Your task to perform on an android device: delete the emails in spam in the gmail app Image 0: 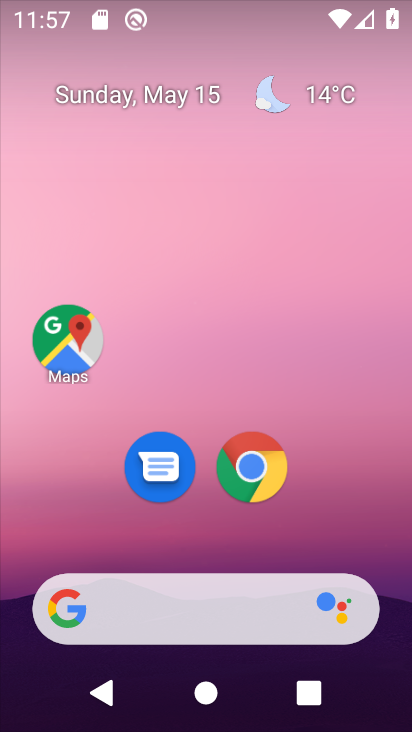
Step 0: drag from (353, 540) to (329, 113)
Your task to perform on an android device: delete the emails in spam in the gmail app Image 1: 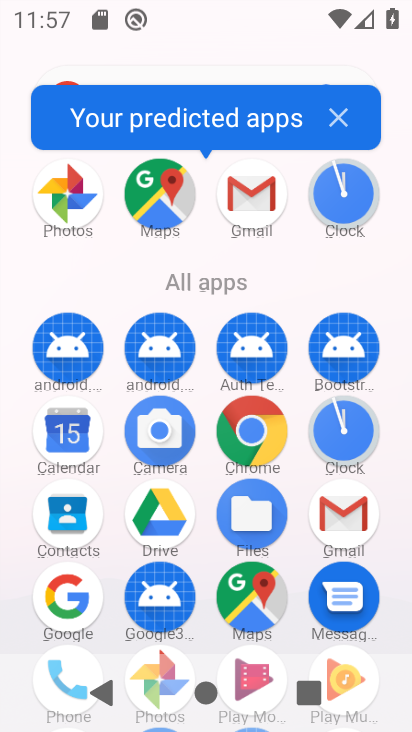
Step 1: click (338, 502)
Your task to perform on an android device: delete the emails in spam in the gmail app Image 2: 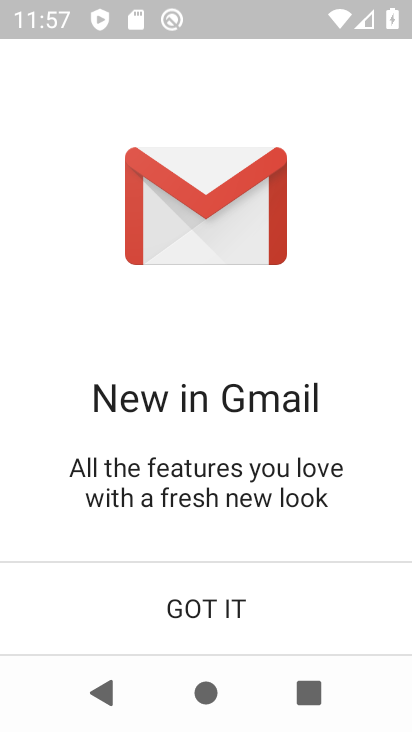
Step 2: click (209, 605)
Your task to perform on an android device: delete the emails in spam in the gmail app Image 3: 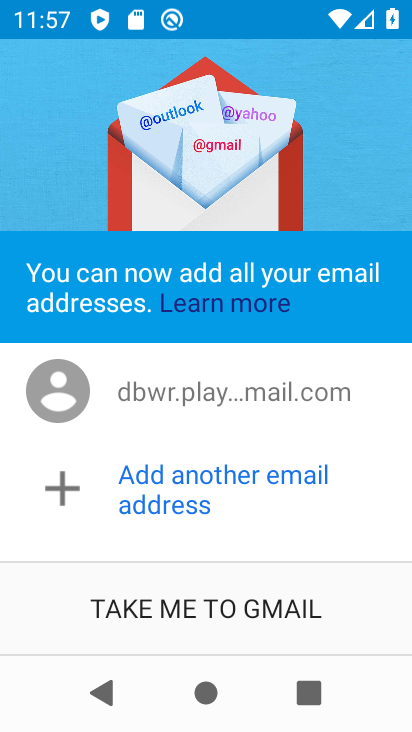
Step 3: click (212, 604)
Your task to perform on an android device: delete the emails in spam in the gmail app Image 4: 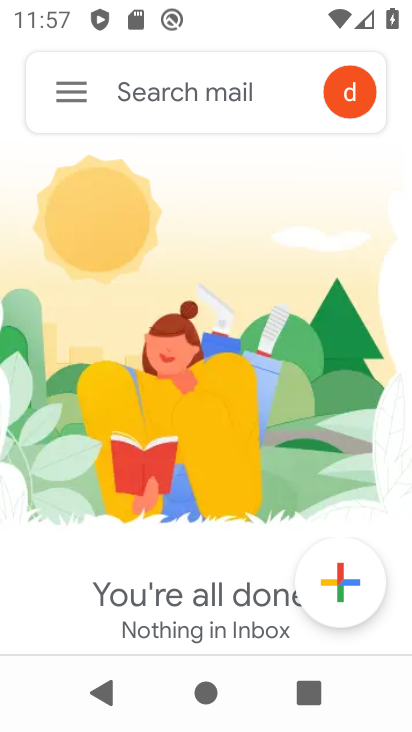
Step 4: click (66, 102)
Your task to perform on an android device: delete the emails in spam in the gmail app Image 5: 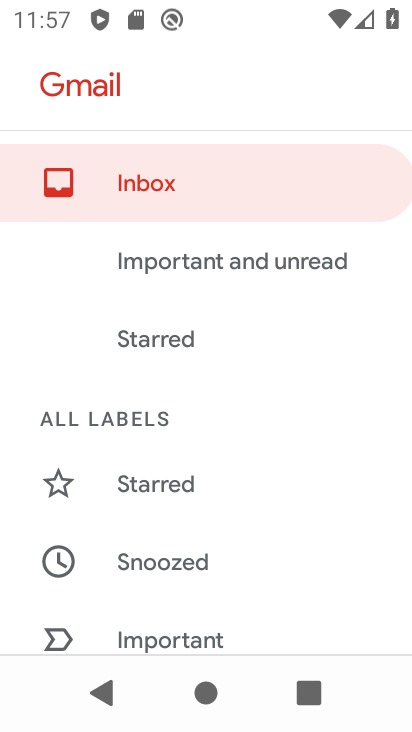
Step 5: drag from (146, 567) to (282, 149)
Your task to perform on an android device: delete the emails in spam in the gmail app Image 6: 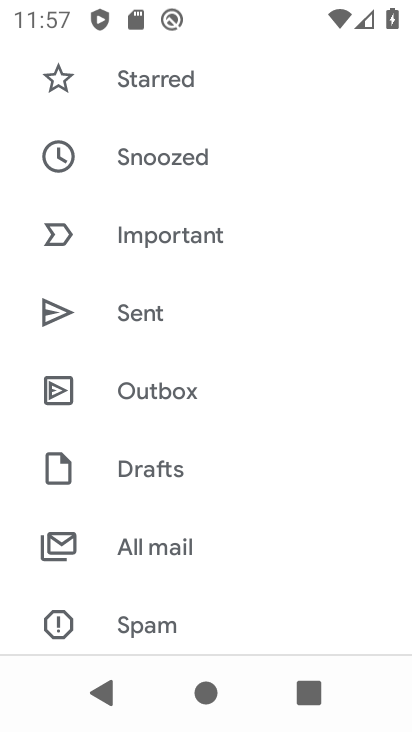
Step 6: click (132, 533)
Your task to perform on an android device: delete the emails in spam in the gmail app Image 7: 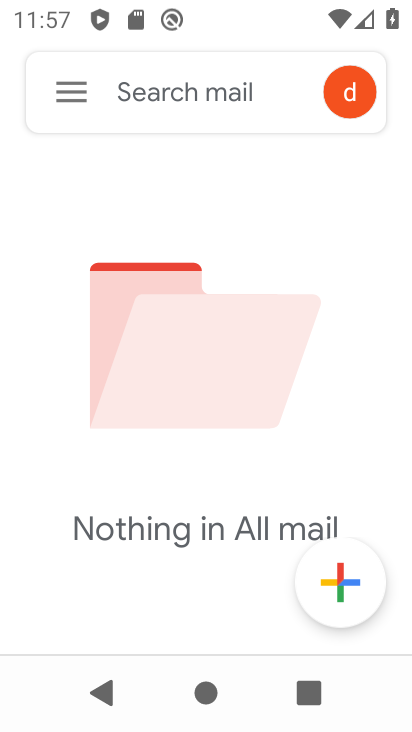
Step 7: task complete